Your task to perform on an android device: toggle javascript in the chrome app Image 0: 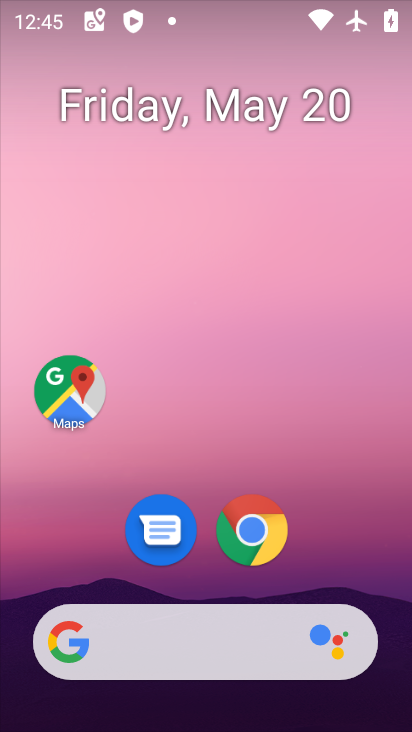
Step 0: click (218, 520)
Your task to perform on an android device: toggle javascript in the chrome app Image 1: 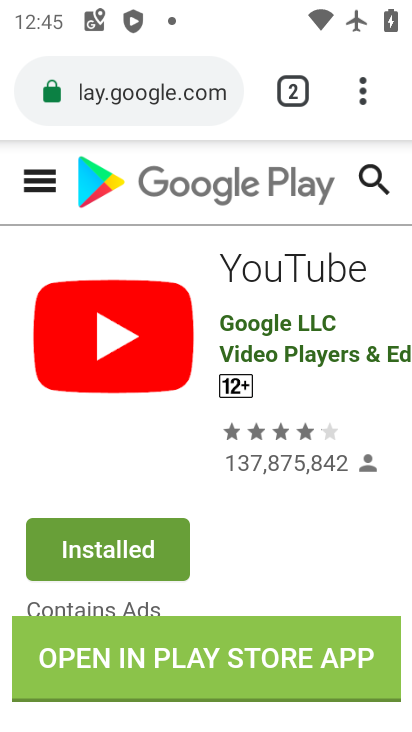
Step 1: click (353, 94)
Your task to perform on an android device: toggle javascript in the chrome app Image 2: 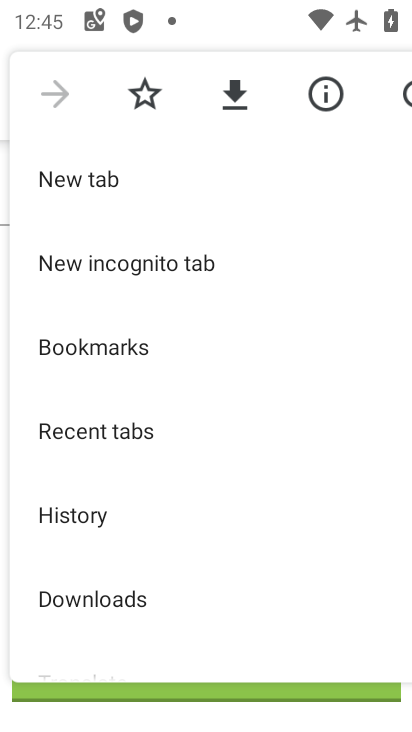
Step 2: drag from (286, 616) to (260, 47)
Your task to perform on an android device: toggle javascript in the chrome app Image 3: 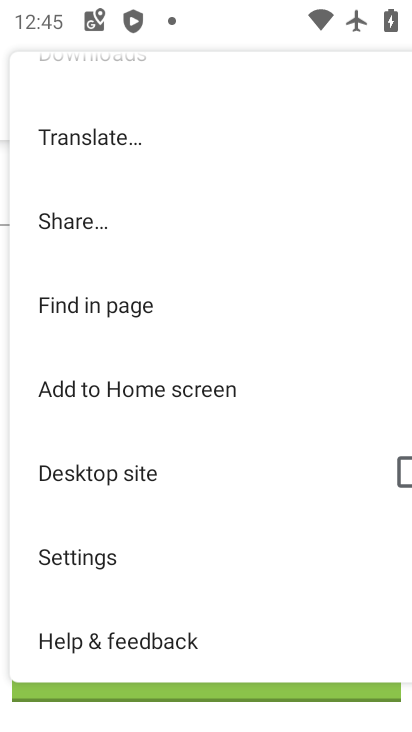
Step 3: click (81, 557)
Your task to perform on an android device: toggle javascript in the chrome app Image 4: 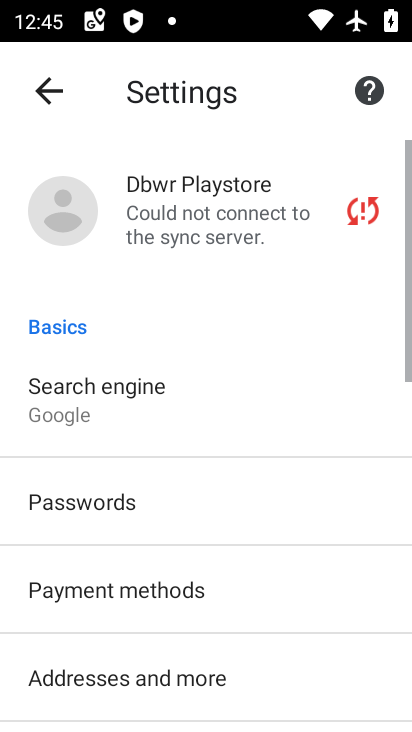
Step 4: drag from (189, 549) to (166, 240)
Your task to perform on an android device: toggle javascript in the chrome app Image 5: 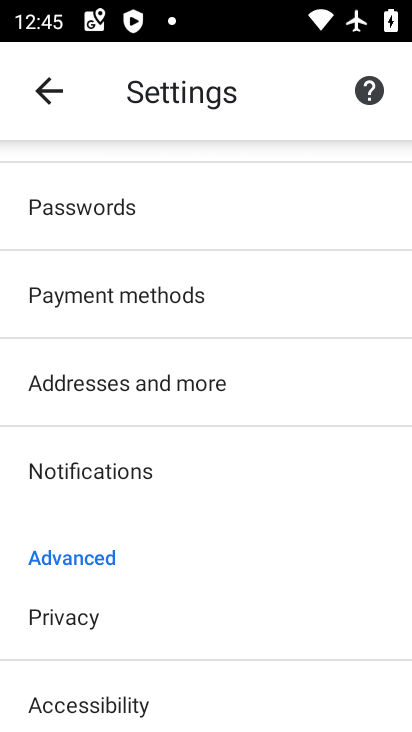
Step 5: drag from (173, 700) to (205, 294)
Your task to perform on an android device: toggle javascript in the chrome app Image 6: 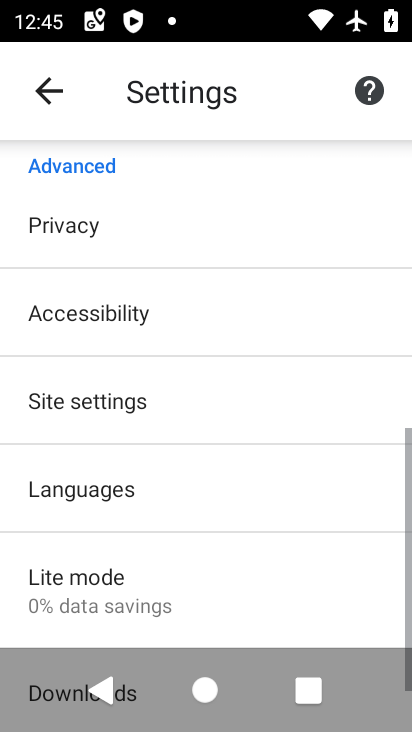
Step 6: click (124, 401)
Your task to perform on an android device: toggle javascript in the chrome app Image 7: 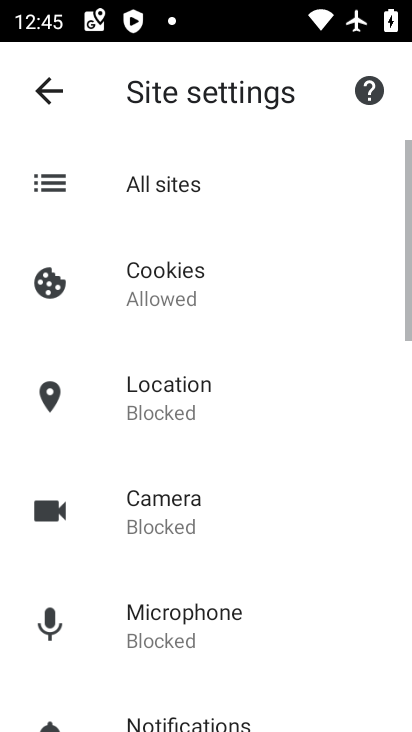
Step 7: drag from (165, 665) to (151, 172)
Your task to perform on an android device: toggle javascript in the chrome app Image 8: 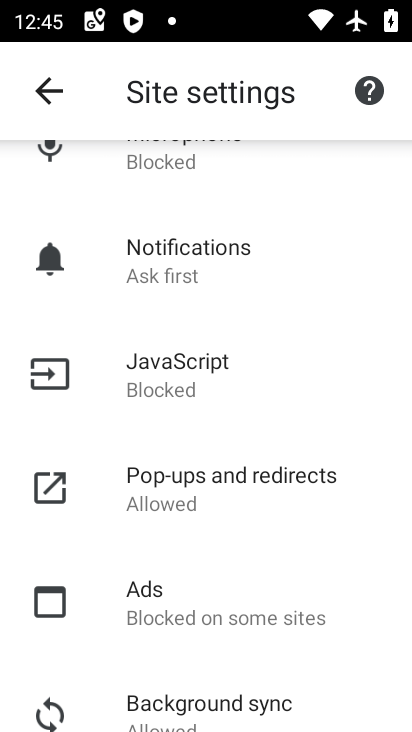
Step 8: click (206, 396)
Your task to perform on an android device: toggle javascript in the chrome app Image 9: 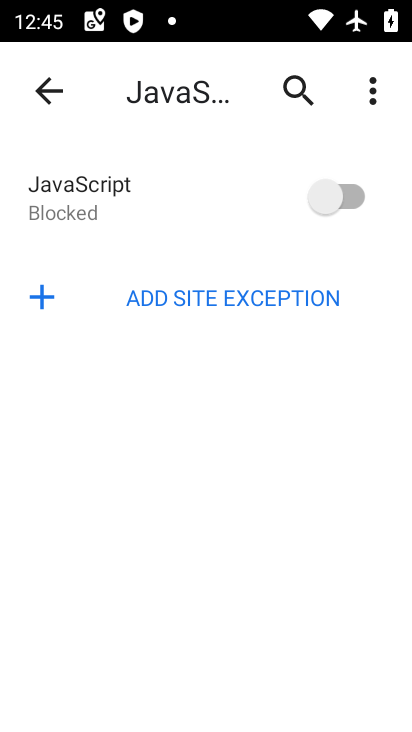
Step 9: click (350, 186)
Your task to perform on an android device: toggle javascript in the chrome app Image 10: 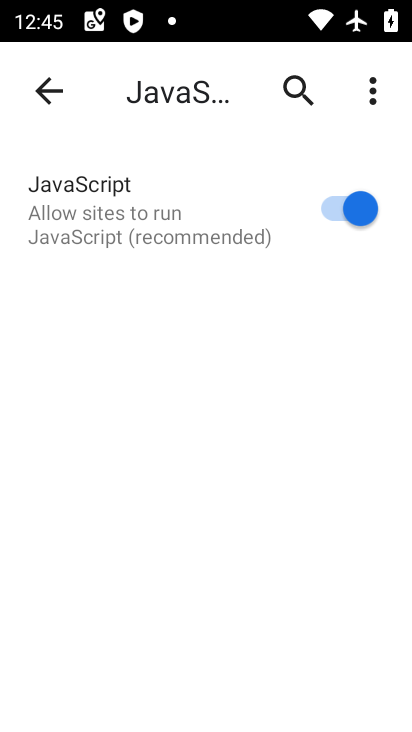
Step 10: task complete